Your task to perform on an android device: Go to Yahoo.com Image 0: 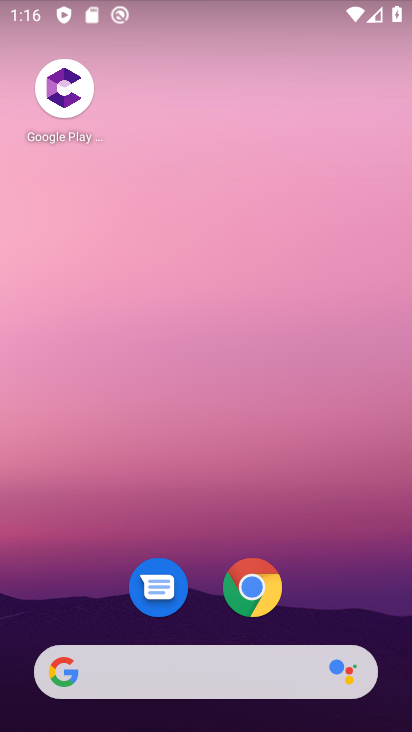
Step 0: press home button
Your task to perform on an android device: Go to Yahoo.com Image 1: 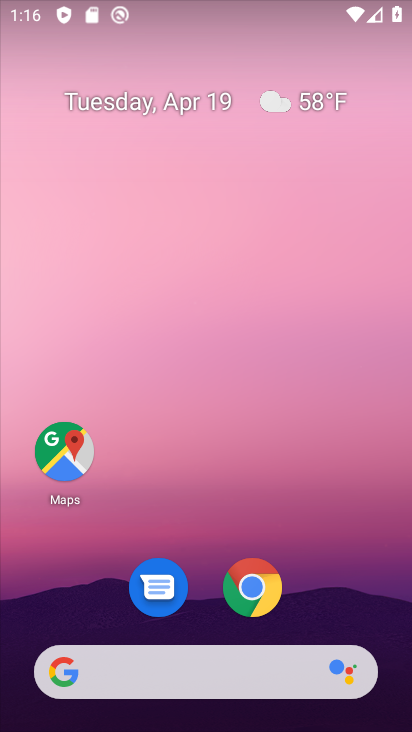
Step 1: drag from (315, 580) to (272, 86)
Your task to perform on an android device: Go to Yahoo.com Image 2: 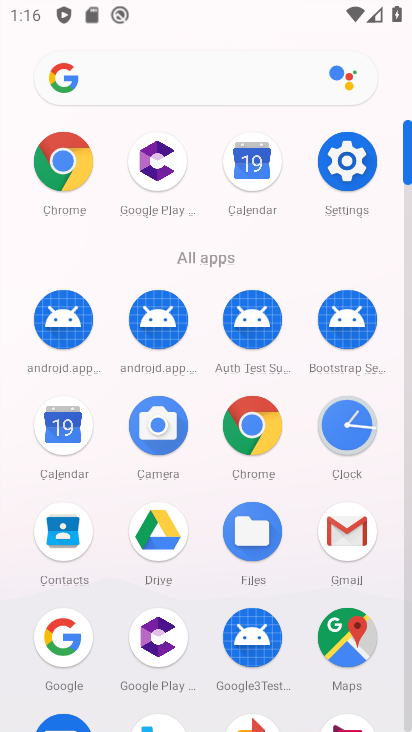
Step 2: click (79, 171)
Your task to perform on an android device: Go to Yahoo.com Image 3: 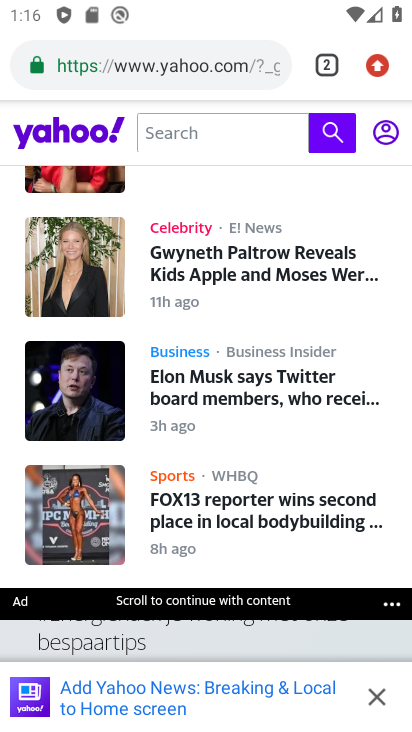
Step 3: task complete